Your task to perform on an android device: make emails show in primary in the gmail app Image 0: 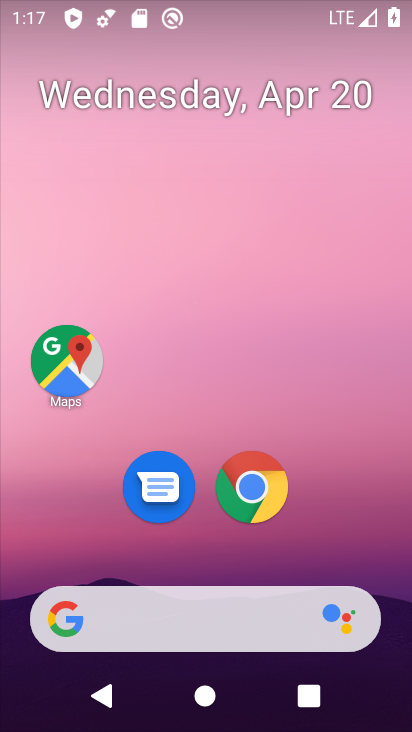
Step 0: drag from (365, 549) to (257, 73)
Your task to perform on an android device: make emails show in primary in the gmail app Image 1: 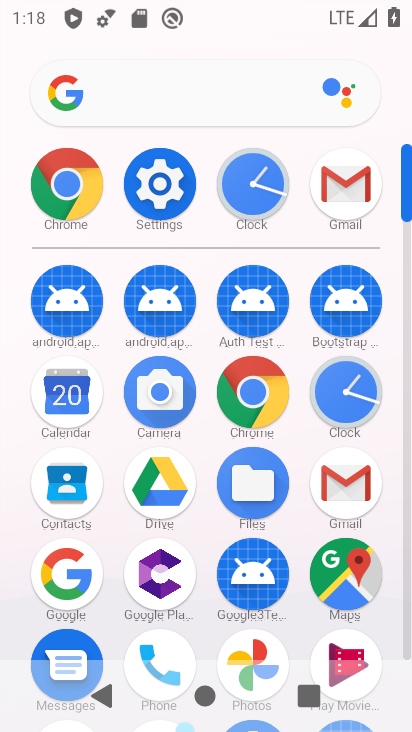
Step 1: click (355, 464)
Your task to perform on an android device: make emails show in primary in the gmail app Image 2: 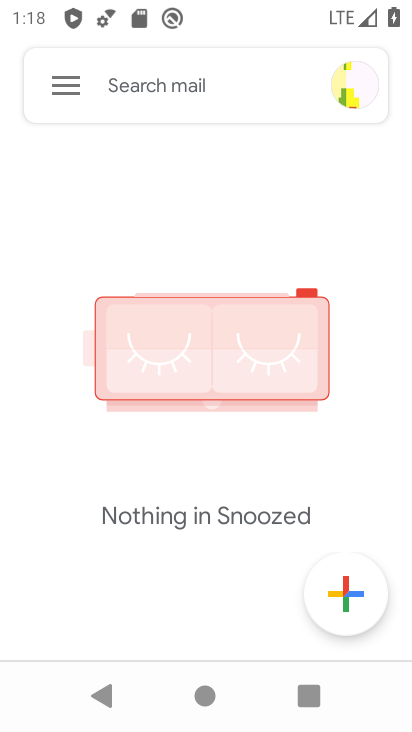
Step 2: click (59, 81)
Your task to perform on an android device: make emails show in primary in the gmail app Image 3: 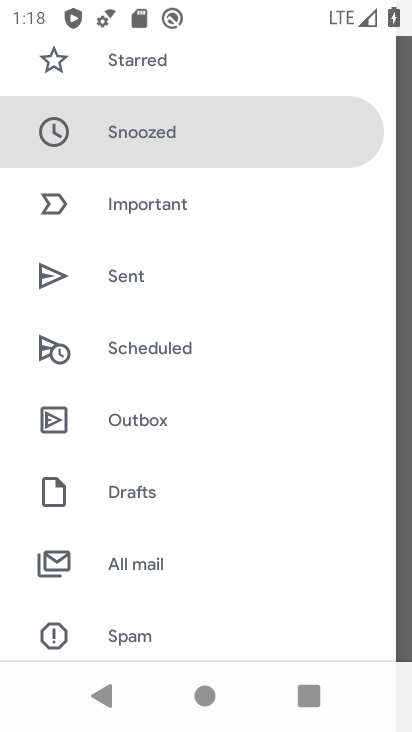
Step 3: task complete